Your task to perform on an android device: Open notification settings Image 0: 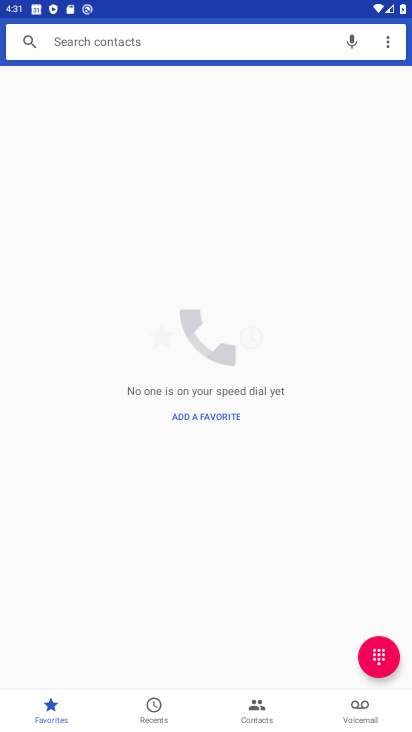
Step 0: press home button
Your task to perform on an android device: Open notification settings Image 1: 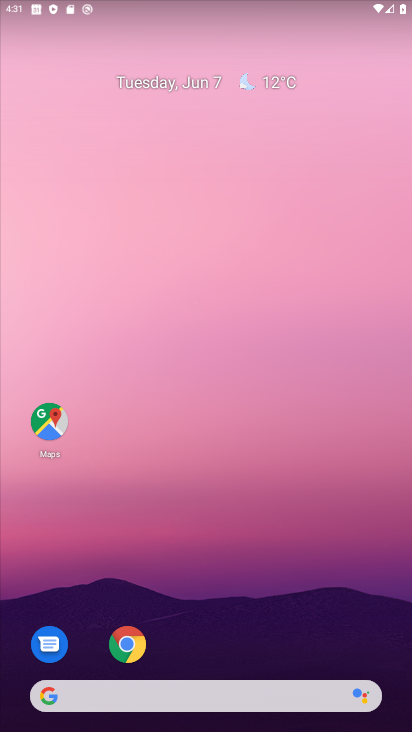
Step 1: drag from (245, 595) to (221, 102)
Your task to perform on an android device: Open notification settings Image 2: 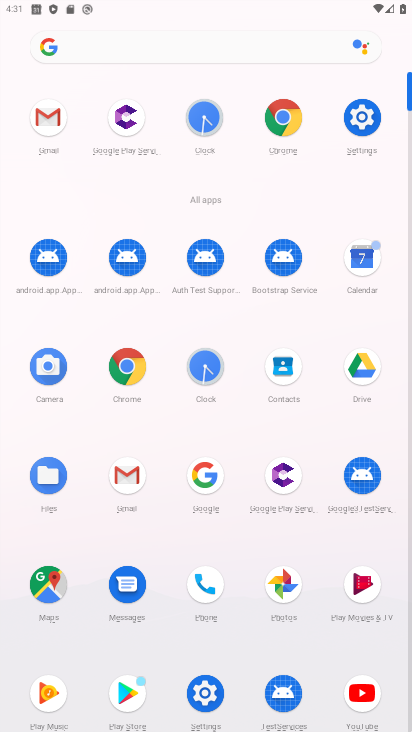
Step 2: click (364, 116)
Your task to perform on an android device: Open notification settings Image 3: 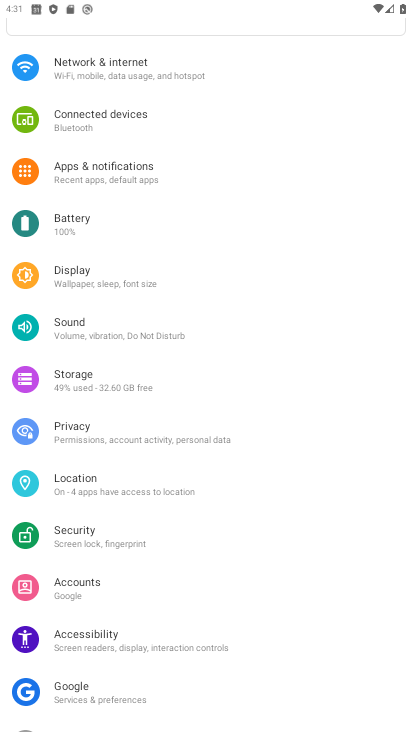
Step 3: click (105, 173)
Your task to perform on an android device: Open notification settings Image 4: 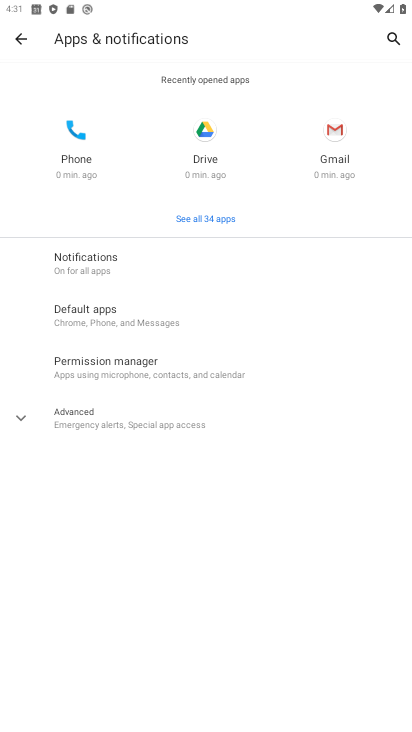
Step 4: click (87, 254)
Your task to perform on an android device: Open notification settings Image 5: 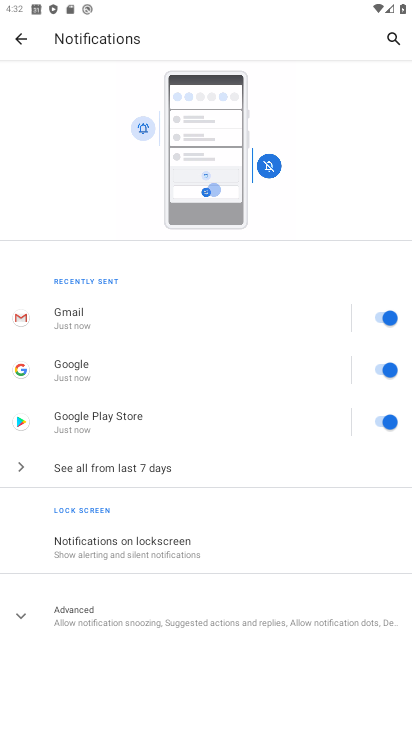
Step 5: task complete